Your task to perform on an android device: Open privacy settings Image 0: 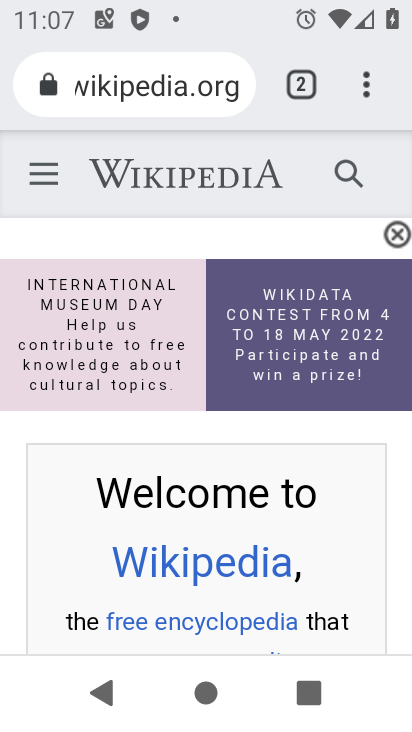
Step 0: press home button
Your task to perform on an android device: Open privacy settings Image 1: 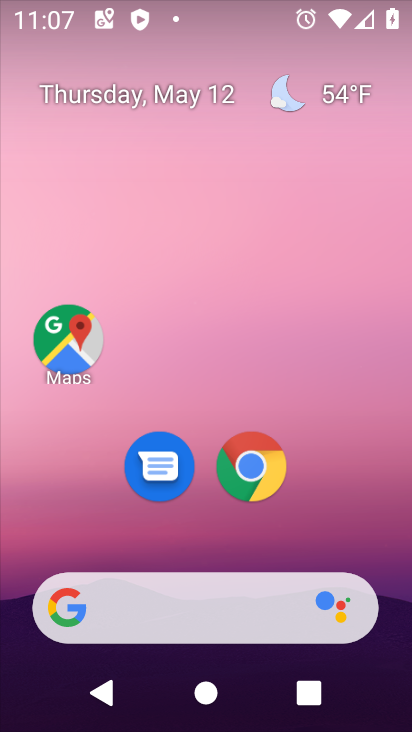
Step 1: drag from (400, 543) to (391, 144)
Your task to perform on an android device: Open privacy settings Image 2: 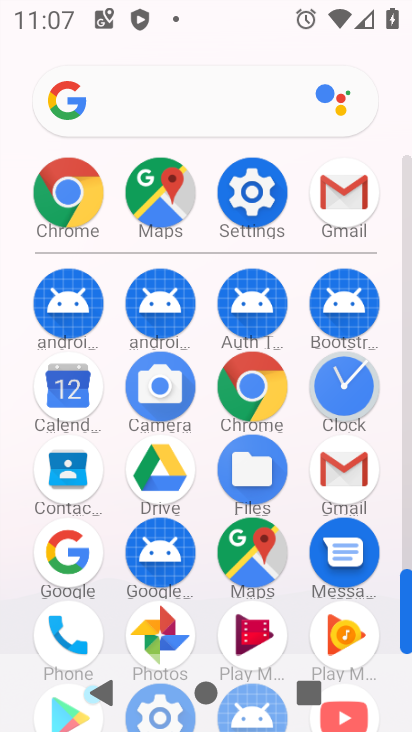
Step 2: click (245, 205)
Your task to perform on an android device: Open privacy settings Image 3: 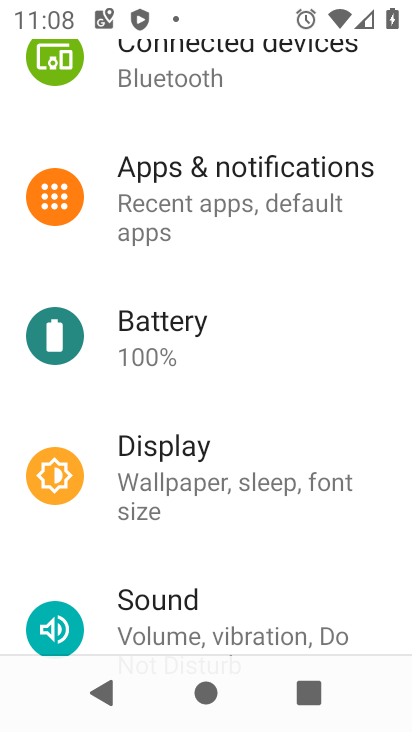
Step 3: drag from (316, 260) to (357, 561)
Your task to perform on an android device: Open privacy settings Image 4: 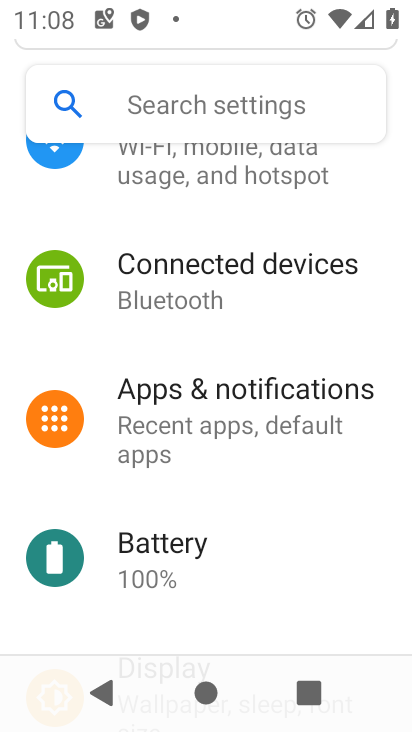
Step 4: drag from (346, 583) to (316, 245)
Your task to perform on an android device: Open privacy settings Image 5: 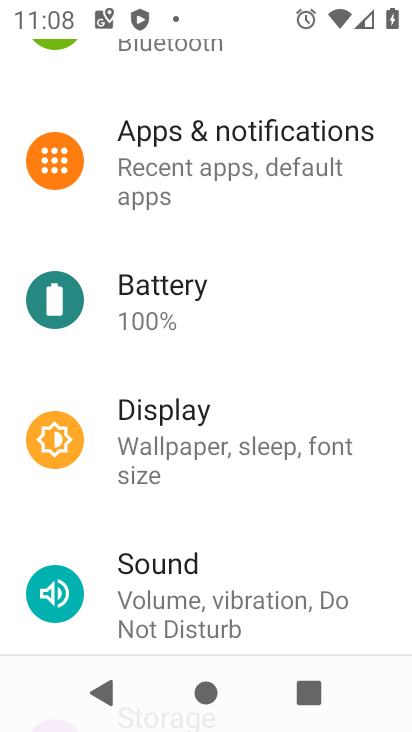
Step 5: drag from (351, 586) to (328, 260)
Your task to perform on an android device: Open privacy settings Image 6: 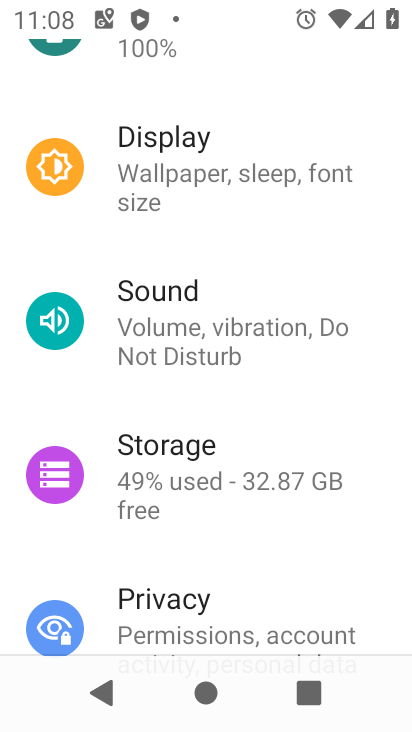
Step 6: drag from (363, 603) to (346, 248)
Your task to perform on an android device: Open privacy settings Image 7: 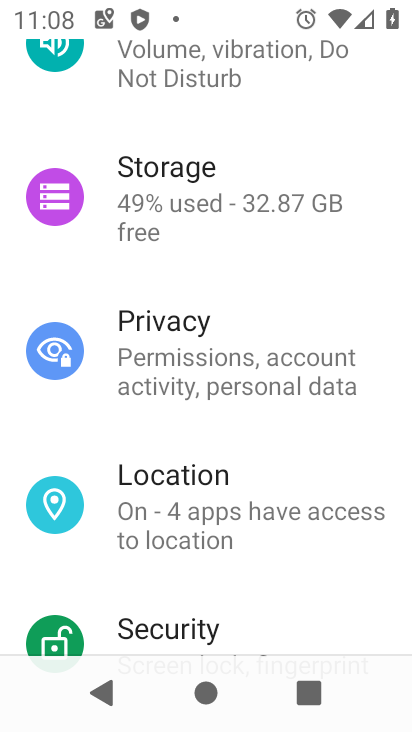
Step 7: click (231, 364)
Your task to perform on an android device: Open privacy settings Image 8: 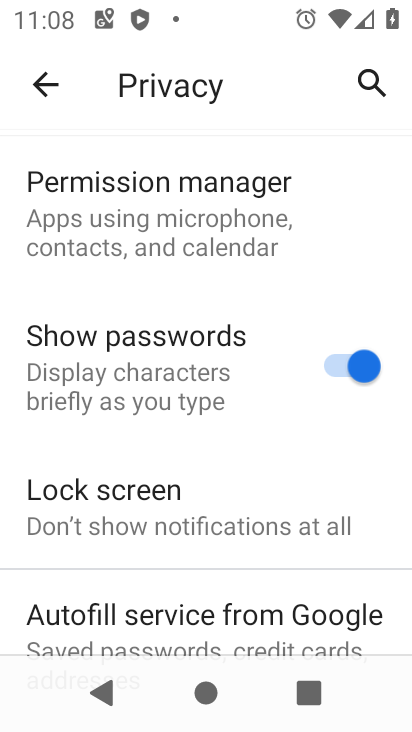
Step 8: task complete